Your task to perform on an android device: turn off picture-in-picture Image 0: 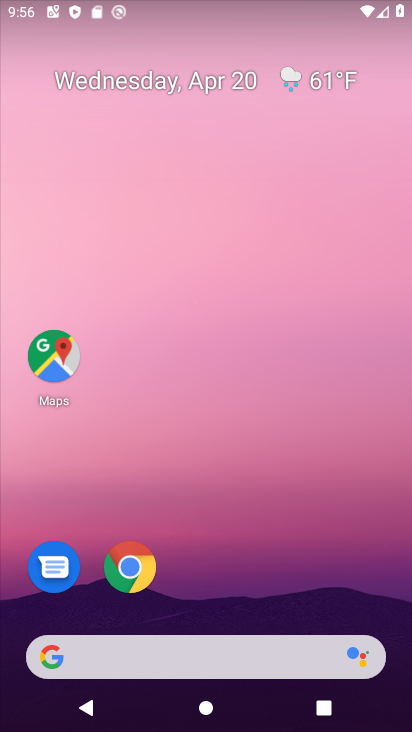
Step 0: click (130, 568)
Your task to perform on an android device: turn off picture-in-picture Image 1: 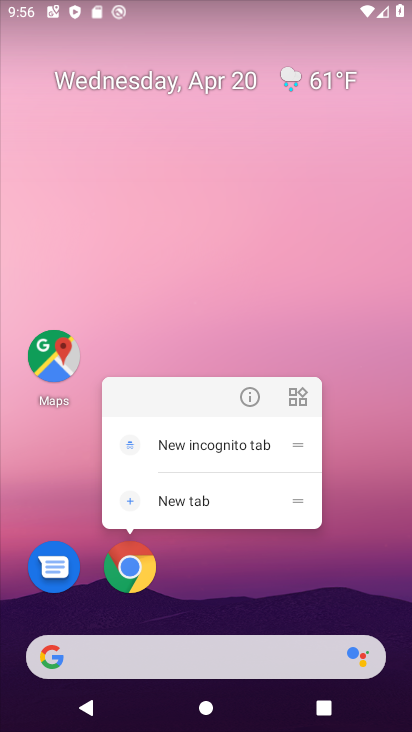
Step 1: click (243, 402)
Your task to perform on an android device: turn off picture-in-picture Image 2: 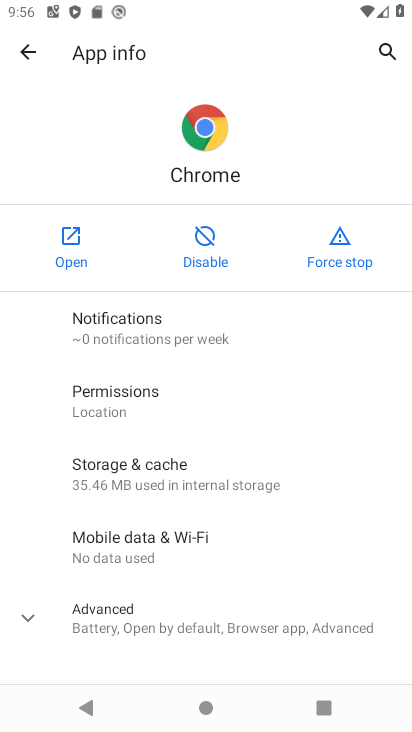
Step 2: drag from (247, 624) to (260, 363)
Your task to perform on an android device: turn off picture-in-picture Image 3: 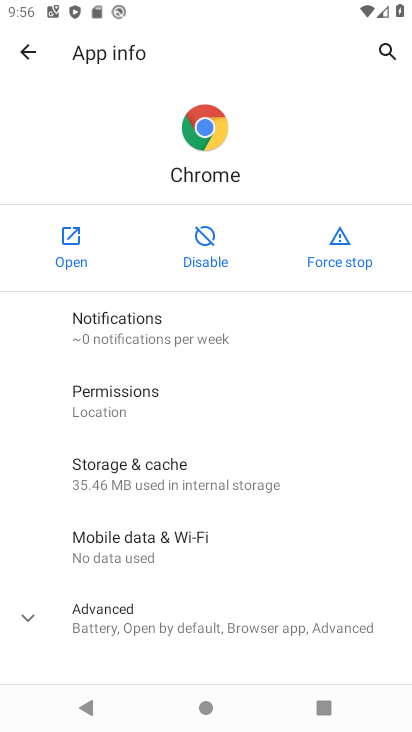
Step 3: click (126, 605)
Your task to perform on an android device: turn off picture-in-picture Image 4: 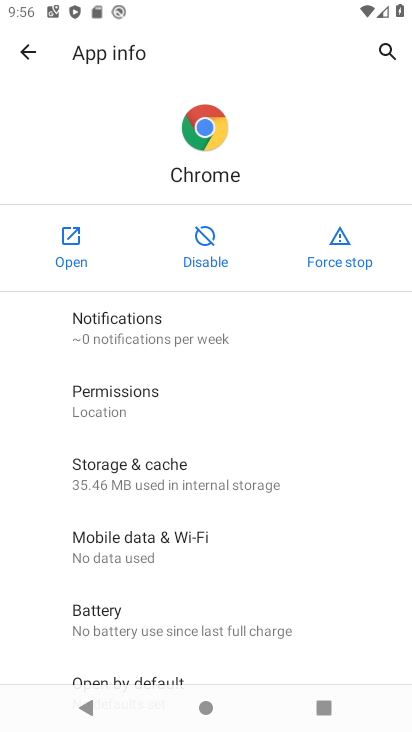
Step 4: drag from (262, 596) to (270, 289)
Your task to perform on an android device: turn off picture-in-picture Image 5: 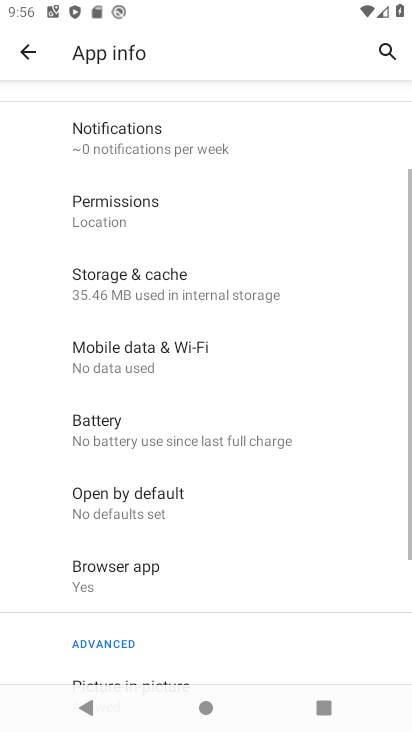
Step 5: drag from (204, 635) to (245, 270)
Your task to perform on an android device: turn off picture-in-picture Image 6: 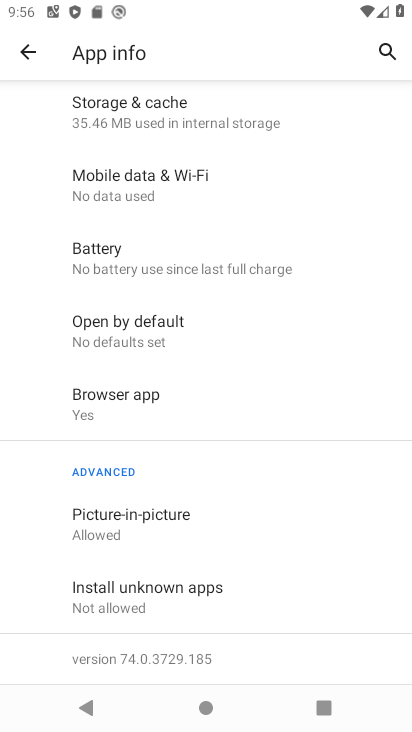
Step 6: click (162, 528)
Your task to perform on an android device: turn off picture-in-picture Image 7: 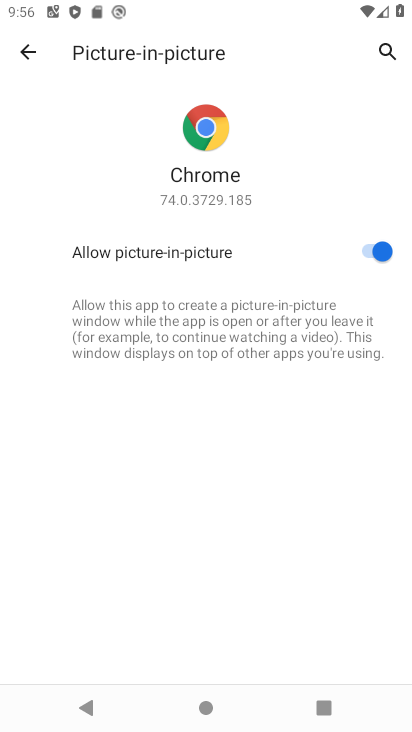
Step 7: click (362, 251)
Your task to perform on an android device: turn off picture-in-picture Image 8: 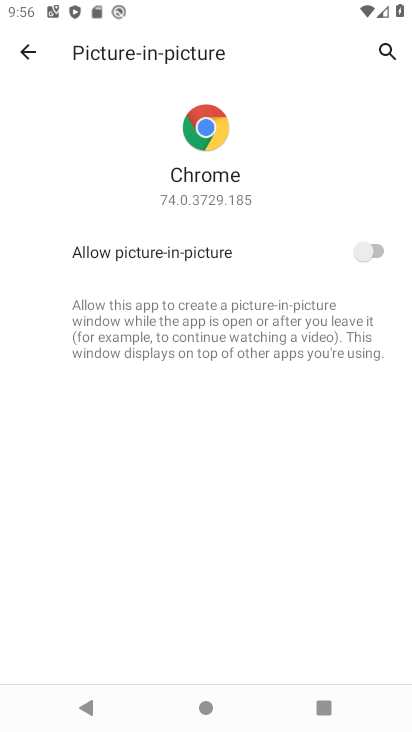
Step 8: task complete